Your task to perform on an android device: Go to wifi settings Image 0: 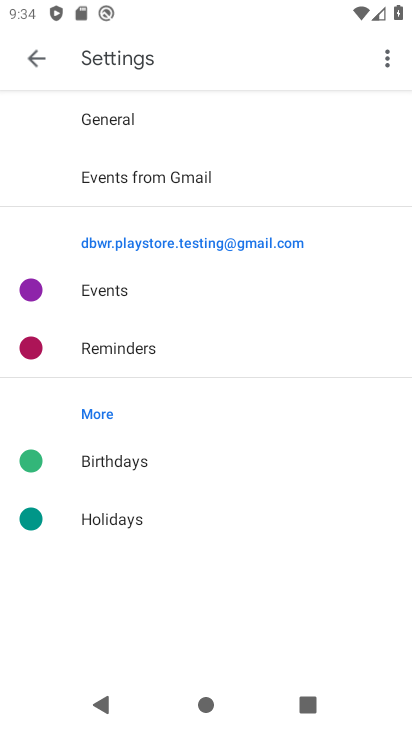
Step 0: press home button
Your task to perform on an android device: Go to wifi settings Image 1: 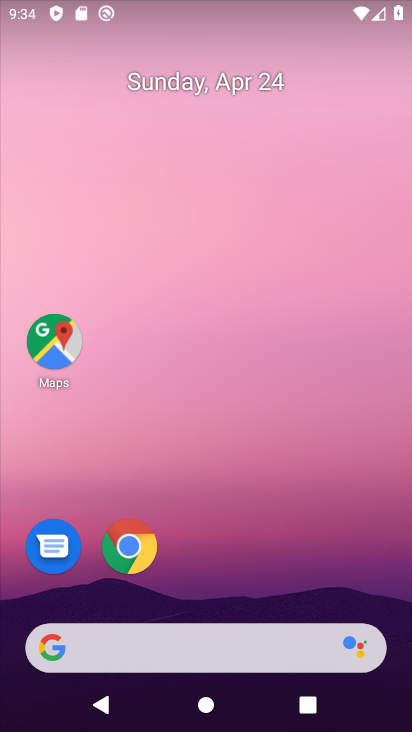
Step 1: drag from (285, 467) to (395, 16)
Your task to perform on an android device: Go to wifi settings Image 2: 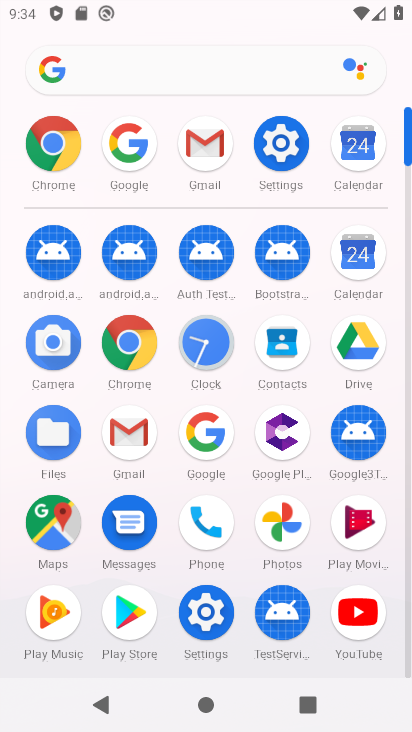
Step 2: click (295, 159)
Your task to perform on an android device: Go to wifi settings Image 3: 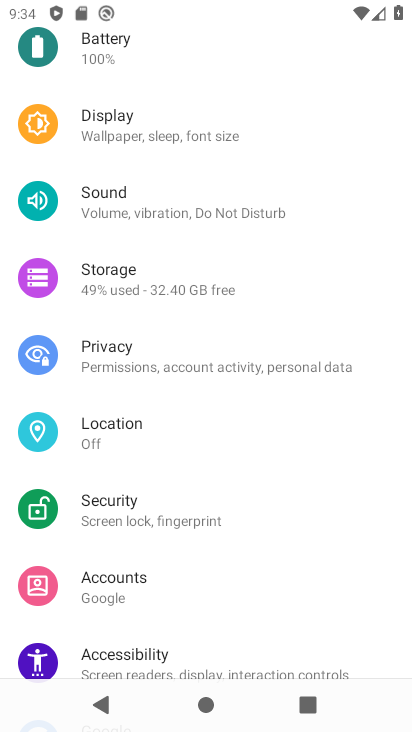
Step 3: drag from (295, 159) to (165, 701)
Your task to perform on an android device: Go to wifi settings Image 4: 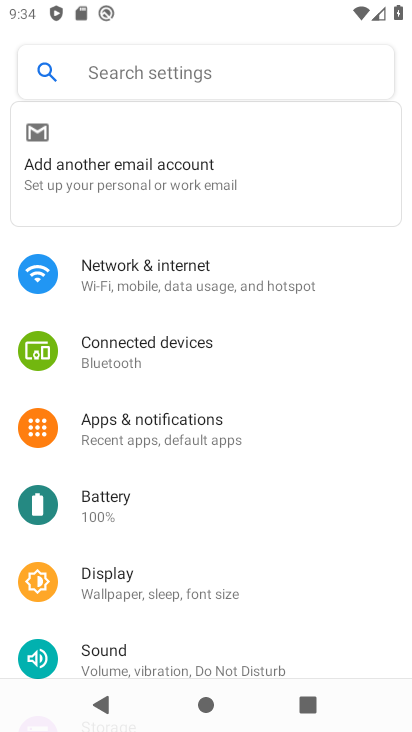
Step 4: click (263, 253)
Your task to perform on an android device: Go to wifi settings Image 5: 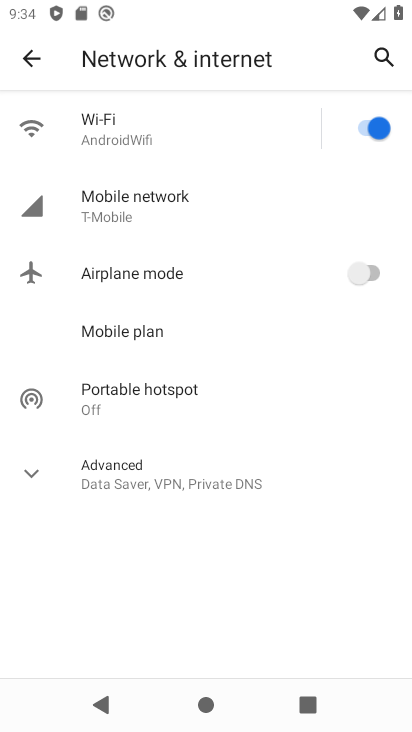
Step 5: click (259, 122)
Your task to perform on an android device: Go to wifi settings Image 6: 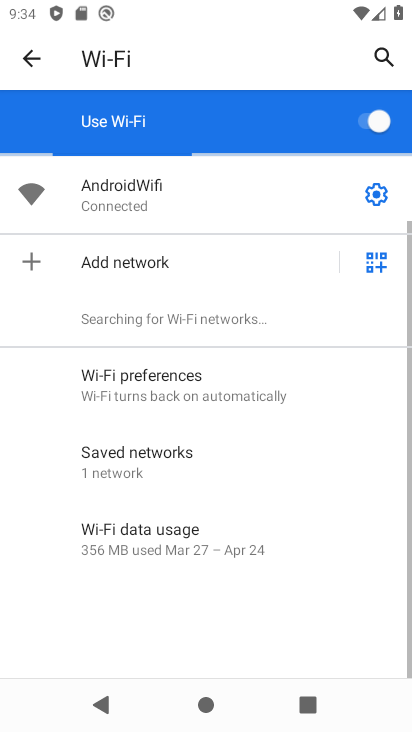
Step 6: click (368, 197)
Your task to perform on an android device: Go to wifi settings Image 7: 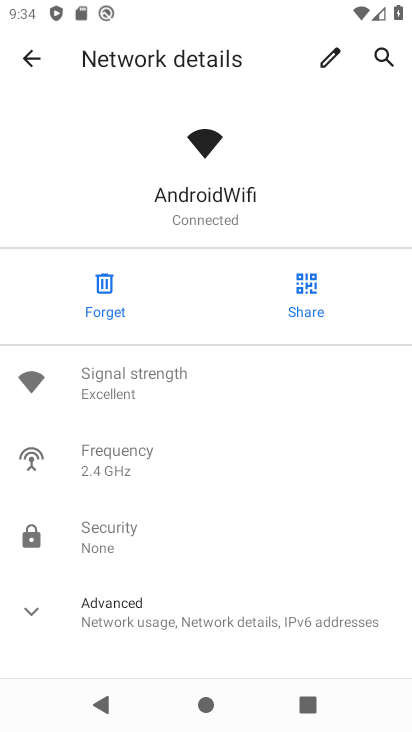
Step 7: task complete